Your task to perform on an android device: Open maps Image 0: 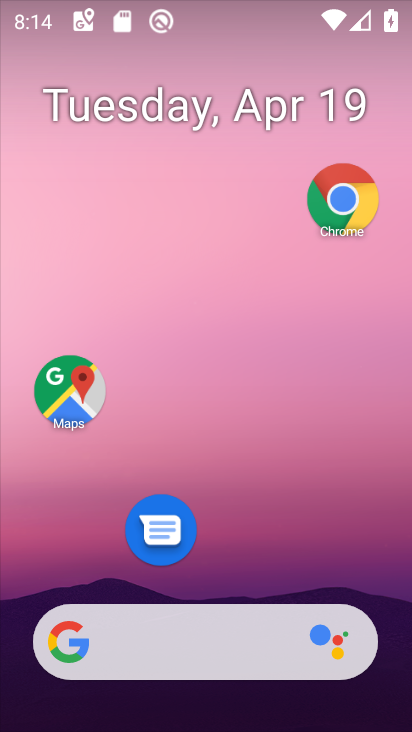
Step 0: drag from (220, 511) to (215, 111)
Your task to perform on an android device: Open maps Image 1: 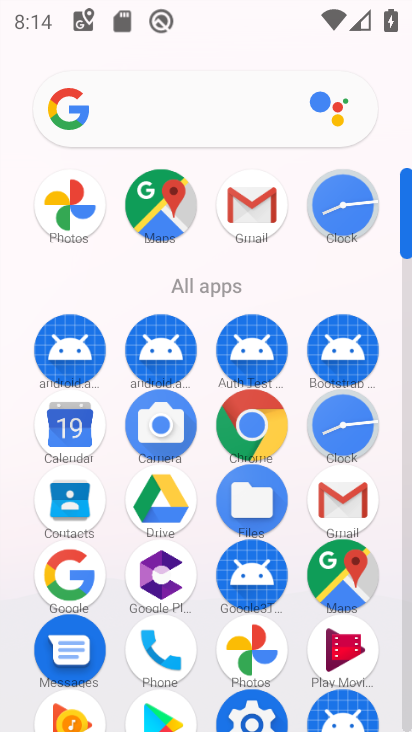
Step 1: click (335, 560)
Your task to perform on an android device: Open maps Image 2: 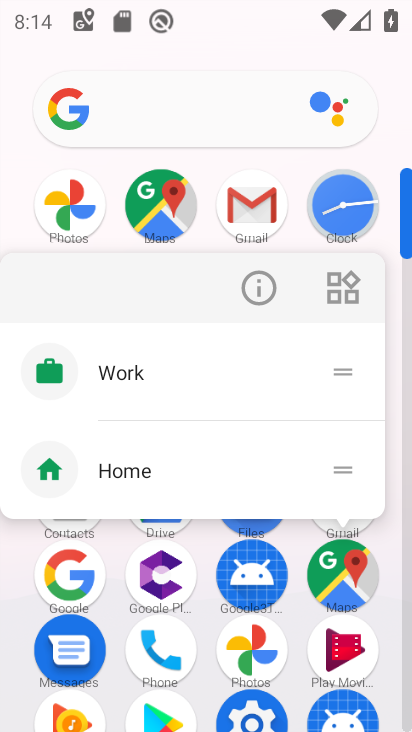
Step 2: click (261, 284)
Your task to perform on an android device: Open maps Image 3: 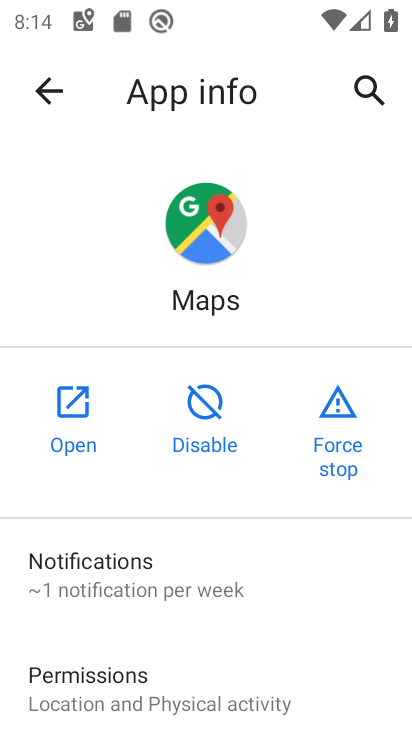
Step 3: click (67, 418)
Your task to perform on an android device: Open maps Image 4: 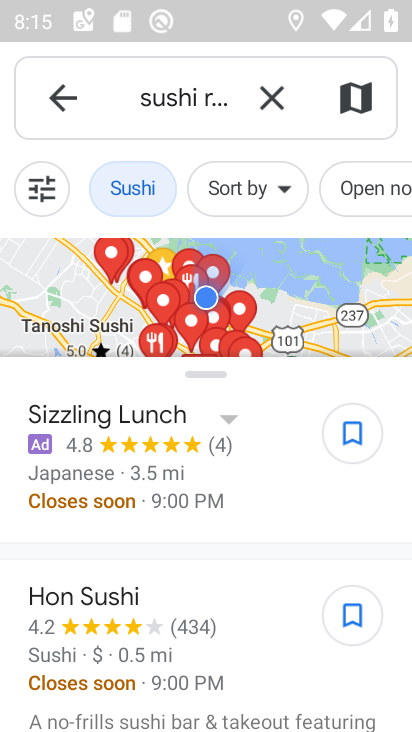
Step 4: task complete